Your task to perform on an android device: Open the stopwatch Image 0: 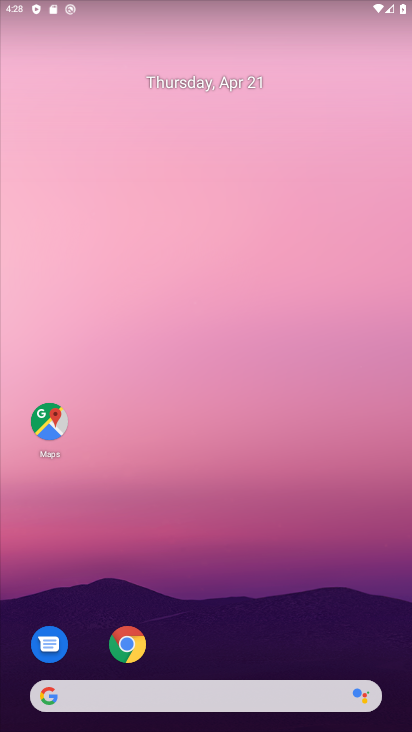
Step 0: drag from (213, 674) to (238, 337)
Your task to perform on an android device: Open the stopwatch Image 1: 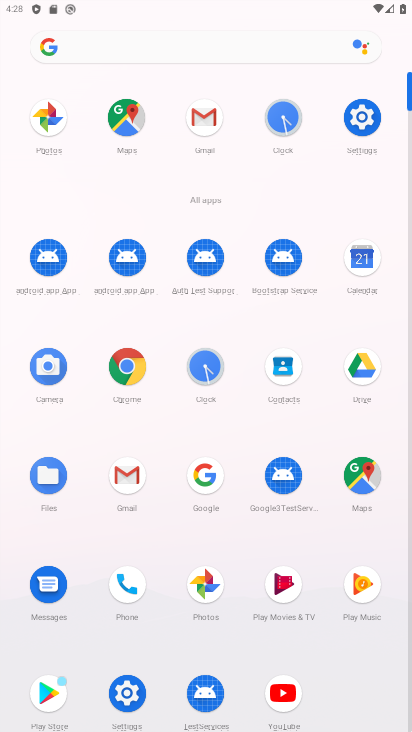
Step 1: click (273, 130)
Your task to perform on an android device: Open the stopwatch Image 2: 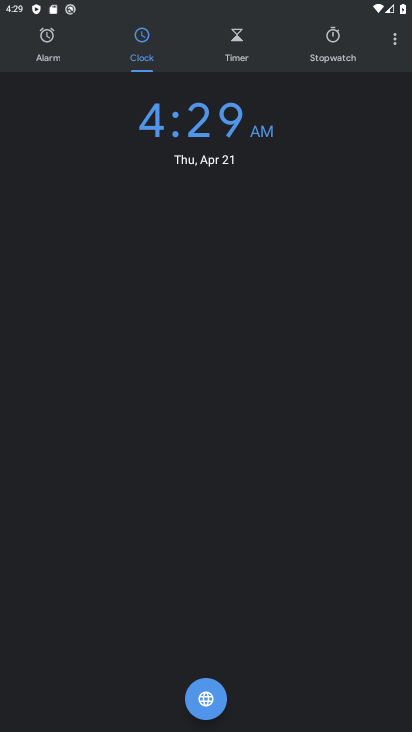
Step 2: click (319, 43)
Your task to perform on an android device: Open the stopwatch Image 3: 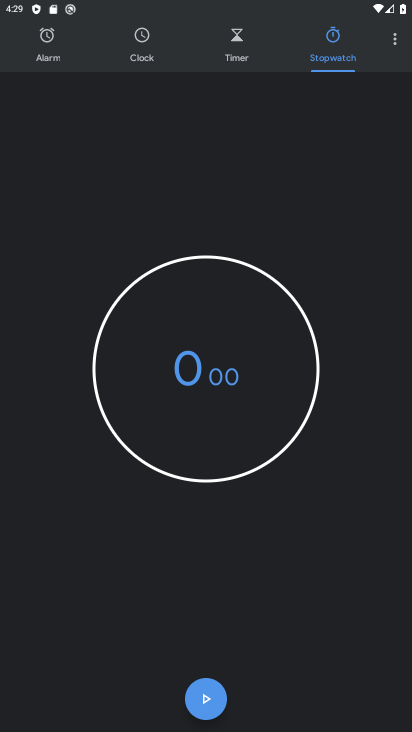
Step 3: task complete